Your task to perform on an android device: Open eBay Image 0: 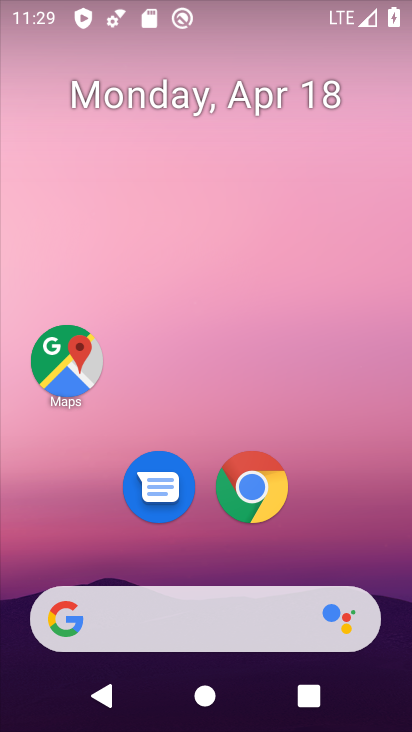
Step 0: click (252, 487)
Your task to perform on an android device: Open eBay Image 1: 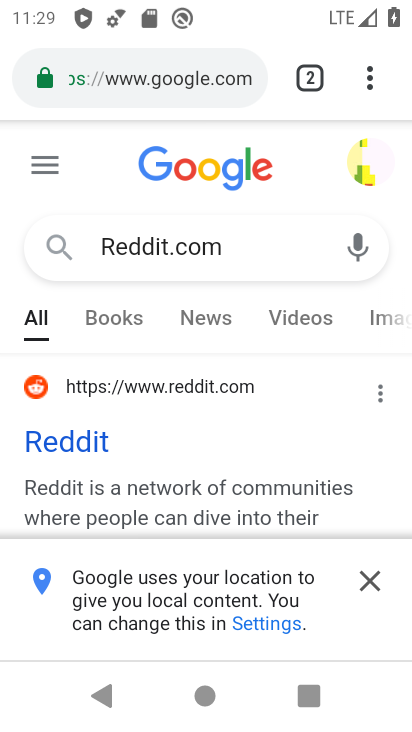
Step 1: click (369, 76)
Your task to perform on an android device: Open eBay Image 2: 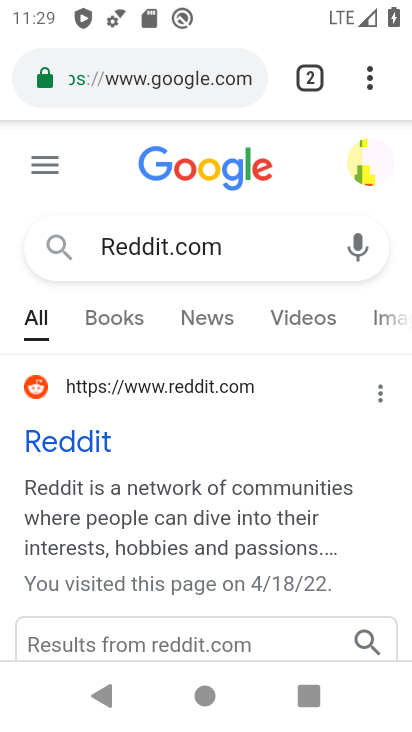
Step 2: click (369, 76)
Your task to perform on an android device: Open eBay Image 3: 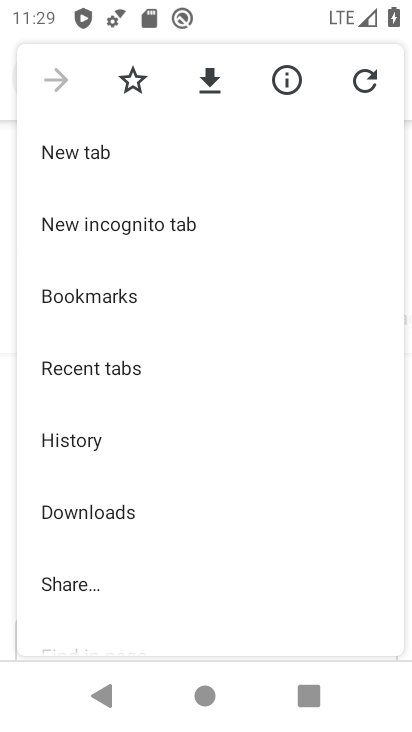
Step 3: click (108, 143)
Your task to perform on an android device: Open eBay Image 4: 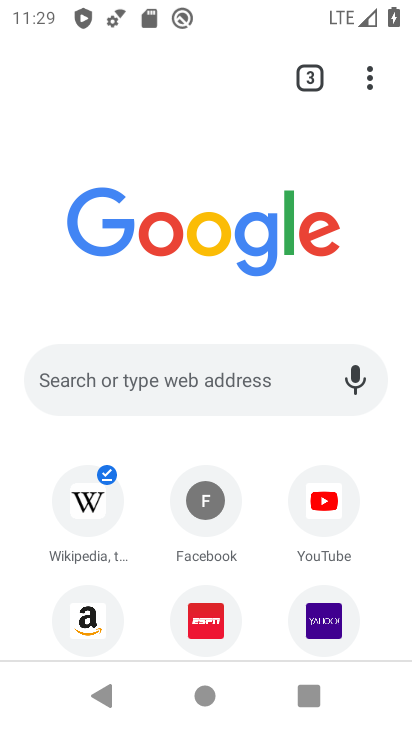
Step 4: drag from (223, 283) to (178, 9)
Your task to perform on an android device: Open eBay Image 5: 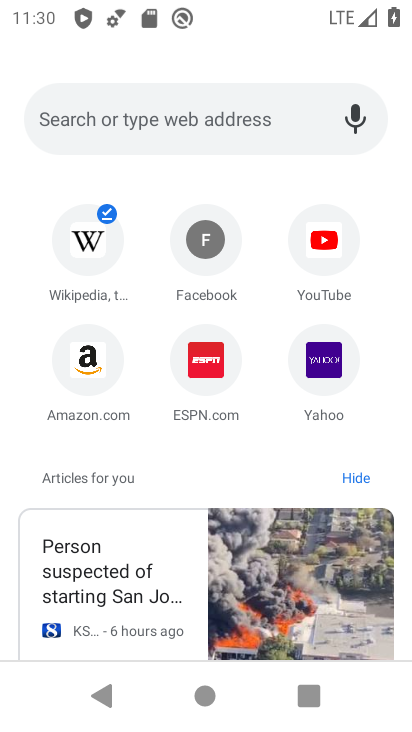
Step 5: click (157, 113)
Your task to perform on an android device: Open eBay Image 6: 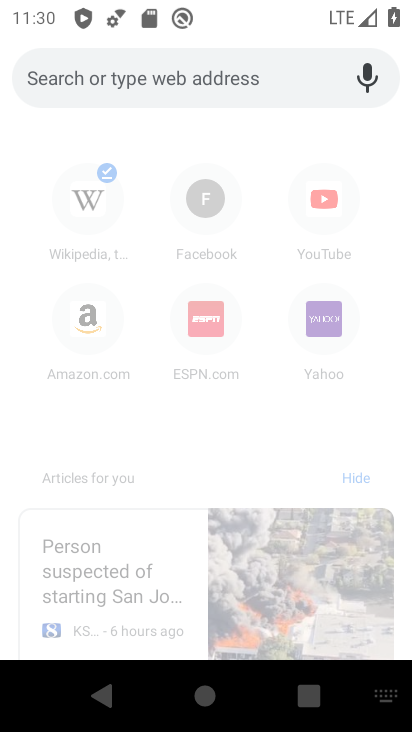
Step 6: type "eBay"
Your task to perform on an android device: Open eBay Image 7: 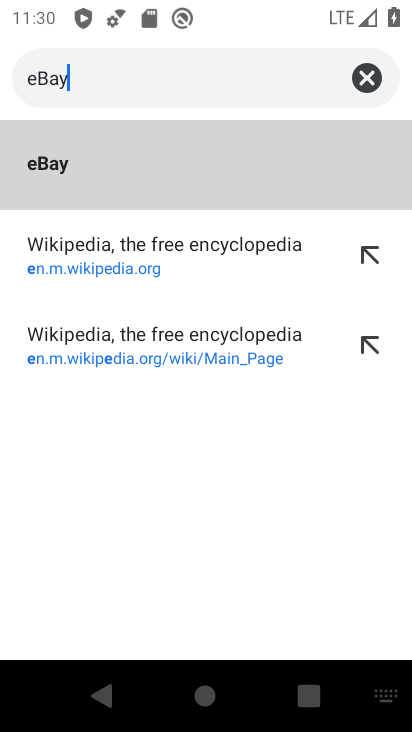
Step 7: type ""
Your task to perform on an android device: Open eBay Image 8: 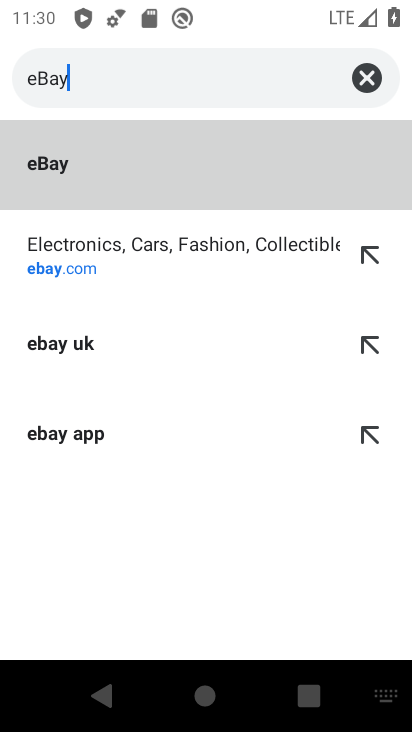
Step 8: click (75, 163)
Your task to perform on an android device: Open eBay Image 9: 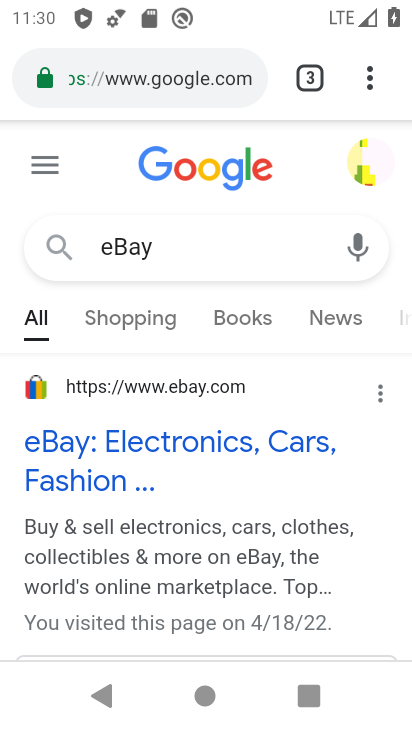
Step 9: task complete